Your task to perform on an android device: What's on the menu at Red Lobster? Image 0: 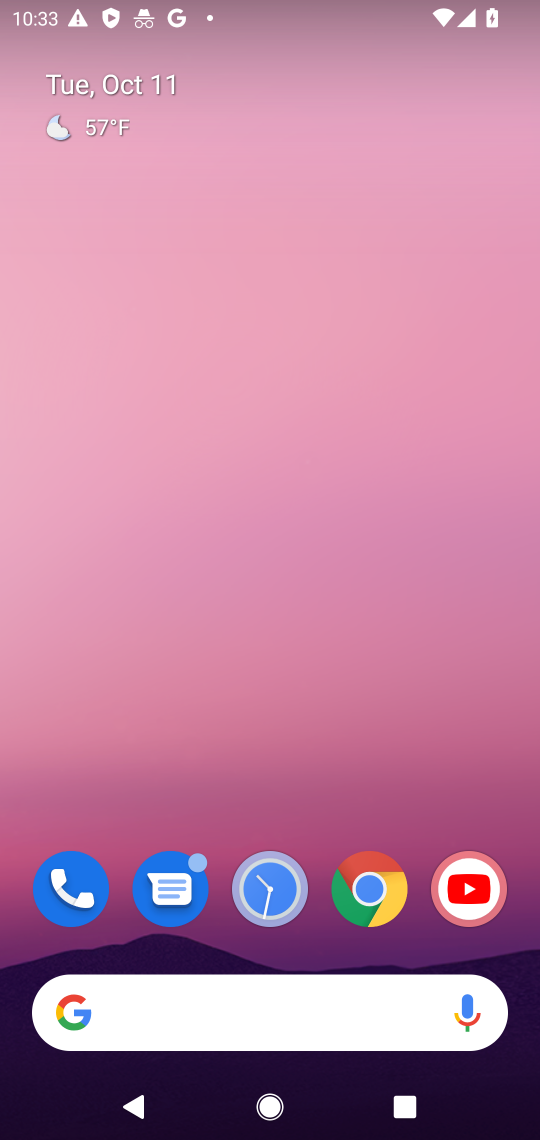
Step 0: click (262, 1013)
Your task to perform on an android device: What's on the menu at Red Lobster? Image 1: 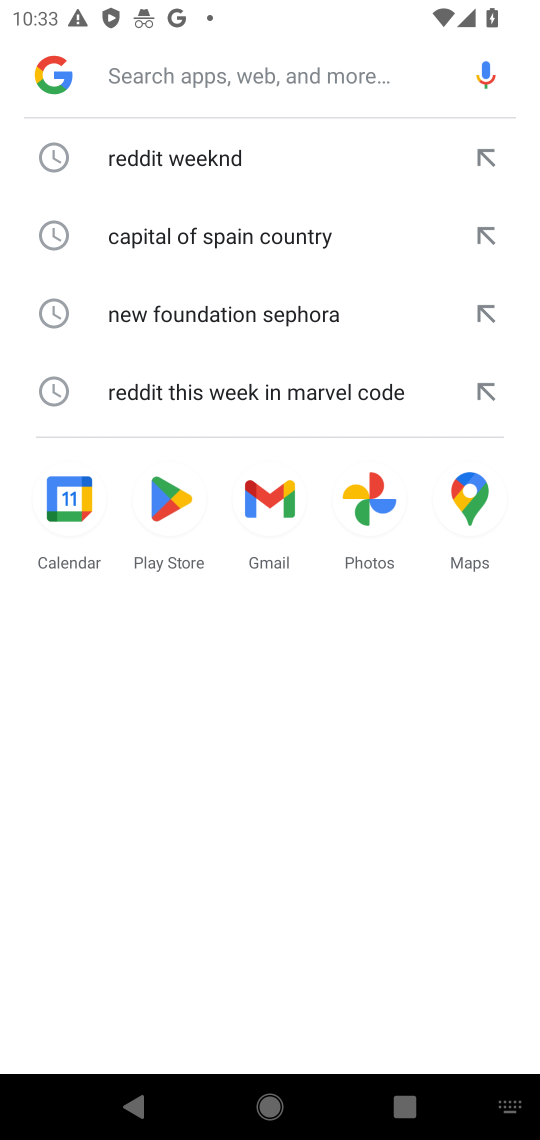
Step 1: click (138, 79)
Your task to perform on an android device: What's on the menu at Red Lobster? Image 2: 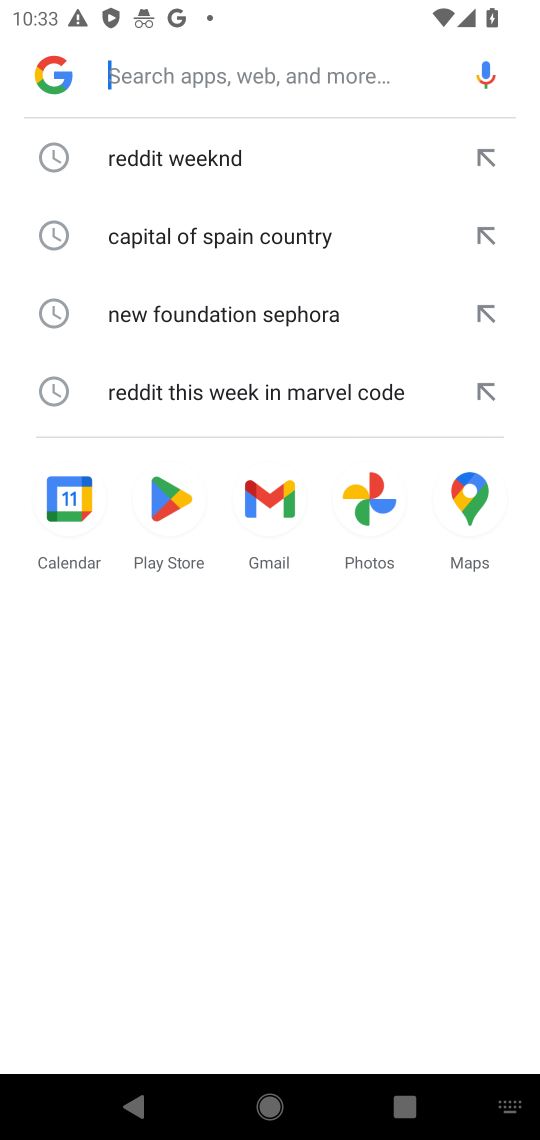
Step 2: type "What's on the menu at Red Lobster?"
Your task to perform on an android device: What's on the menu at Red Lobster? Image 3: 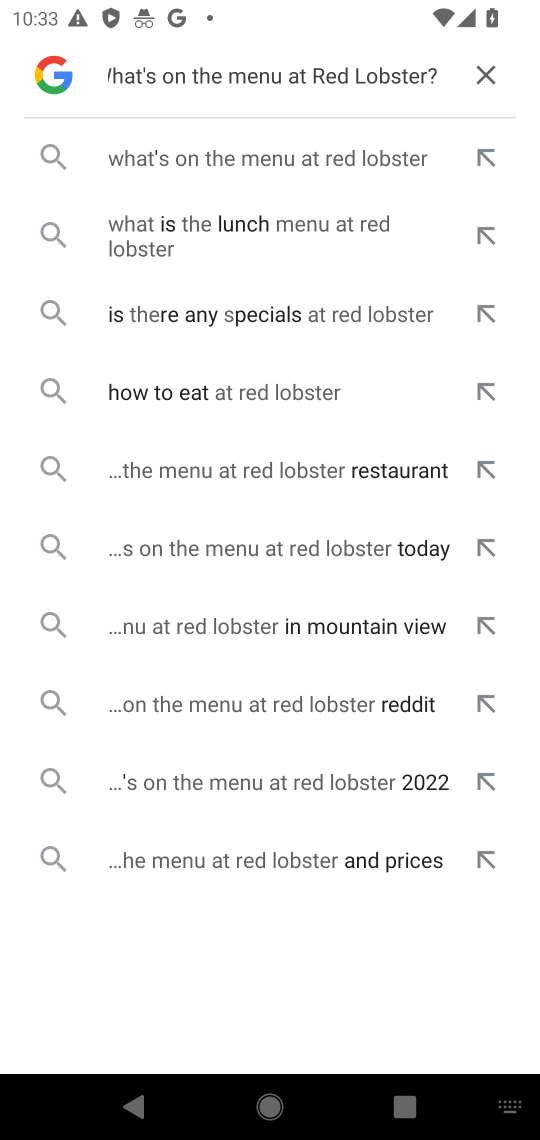
Step 3: click (156, 150)
Your task to perform on an android device: What's on the menu at Red Lobster? Image 4: 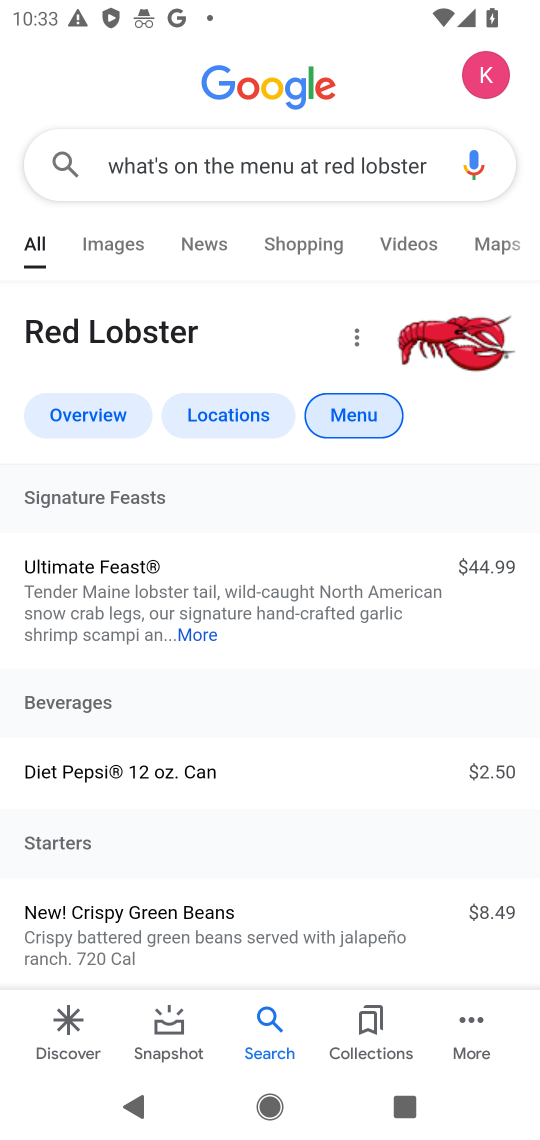
Step 4: task complete